Your task to perform on an android device: open the mobile data screen to see how much data has been used Image 0: 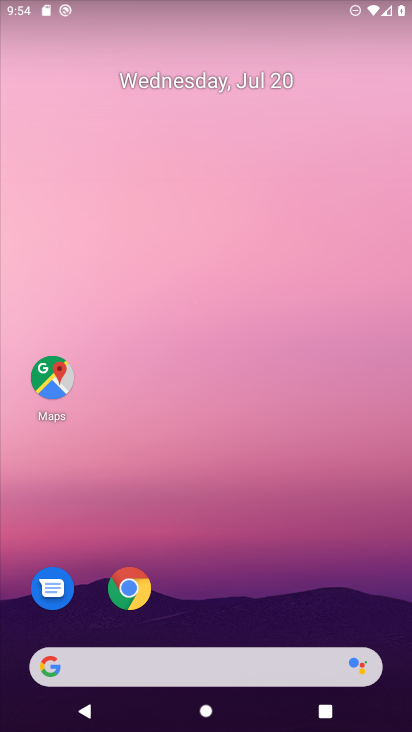
Step 0: drag from (196, 8) to (214, 647)
Your task to perform on an android device: open the mobile data screen to see how much data has been used Image 1: 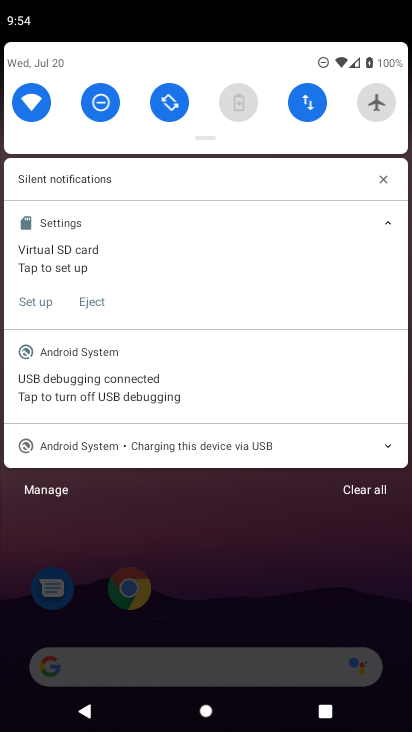
Step 1: click (296, 112)
Your task to perform on an android device: open the mobile data screen to see how much data has been used Image 2: 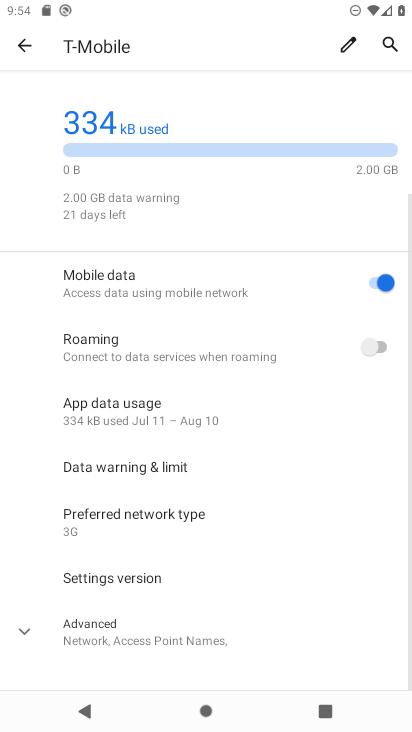
Step 2: task complete